Your task to perform on an android device: search for starred emails in the gmail app Image 0: 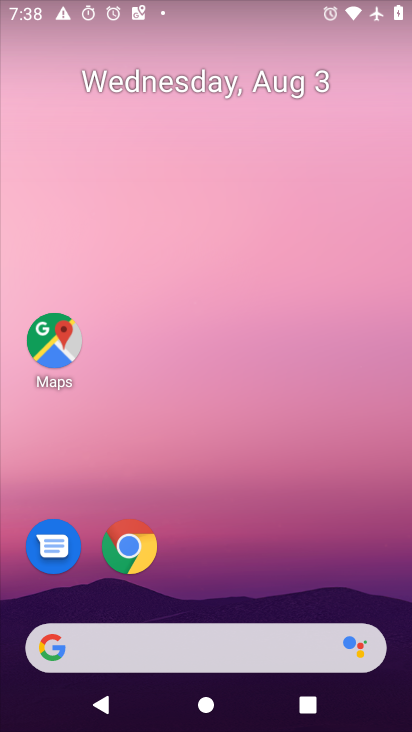
Step 0: press home button
Your task to perform on an android device: search for starred emails in the gmail app Image 1: 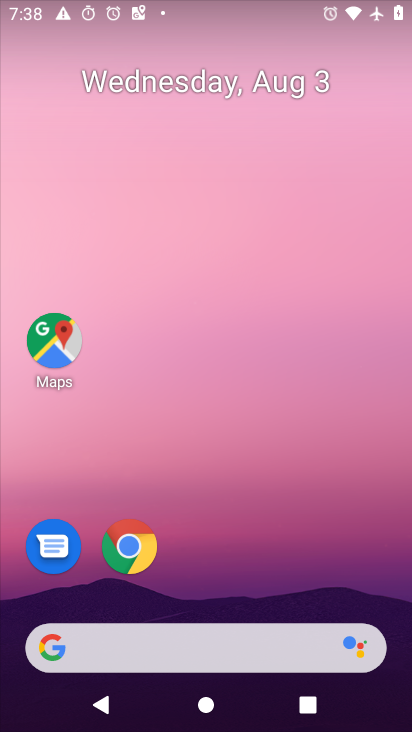
Step 1: drag from (227, 607) to (214, 152)
Your task to perform on an android device: search for starred emails in the gmail app Image 2: 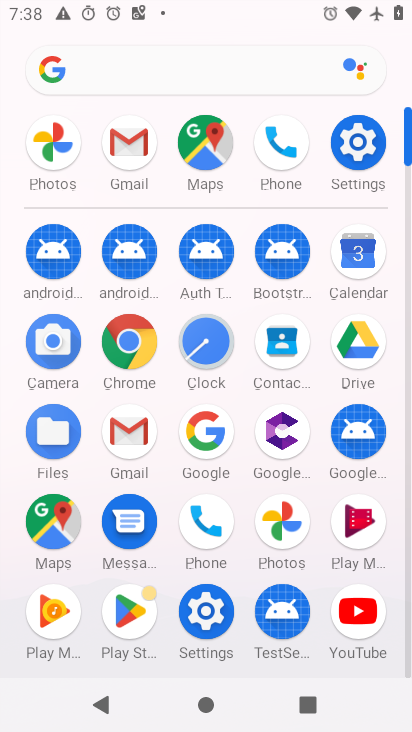
Step 2: click (125, 144)
Your task to perform on an android device: search for starred emails in the gmail app Image 3: 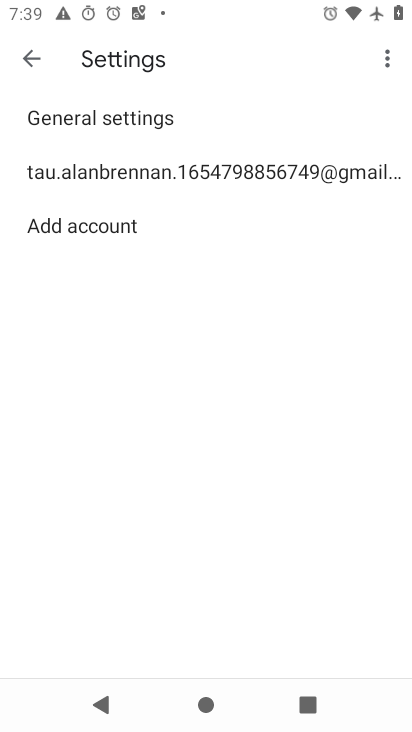
Step 3: click (34, 59)
Your task to perform on an android device: search for starred emails in the gmail app Image 4: 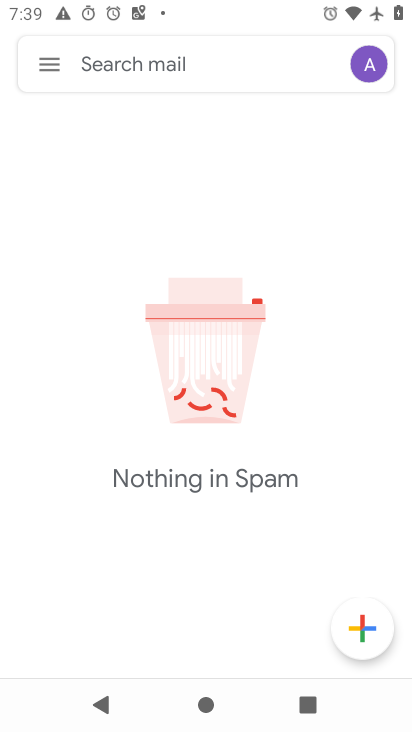
Step 4: click (47, 66)
Your task to perform on an android device: search for starred emails in the gmail app Image 5: 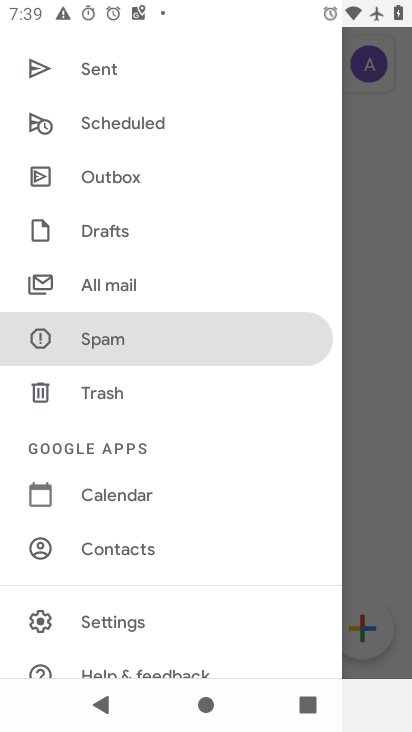
Step 5: drag from (235, 146) to (236, 659)
Your task to perform on an android device: search for starred emails in the gmail app Image 6: 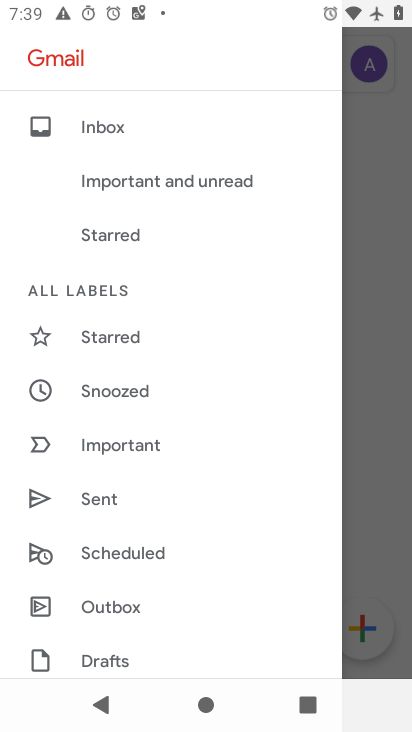
Step 6: click (103, 338)
Your task to perform on an android device: search for starred emails in the gmail app Image 7: 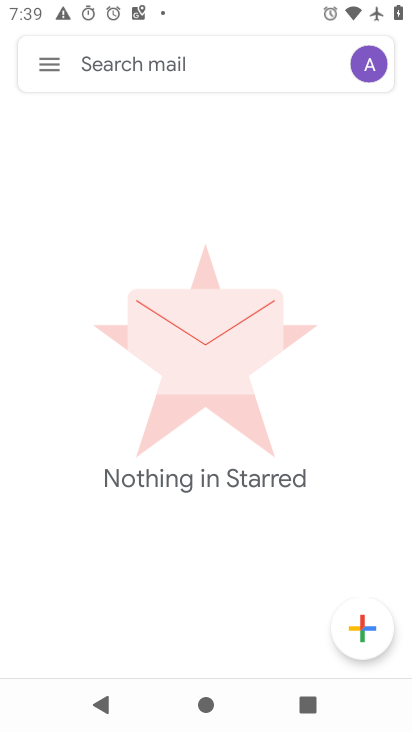
Step 7: task complete